Your task to perform on an android device: change the clock display to show seconds Image 0: 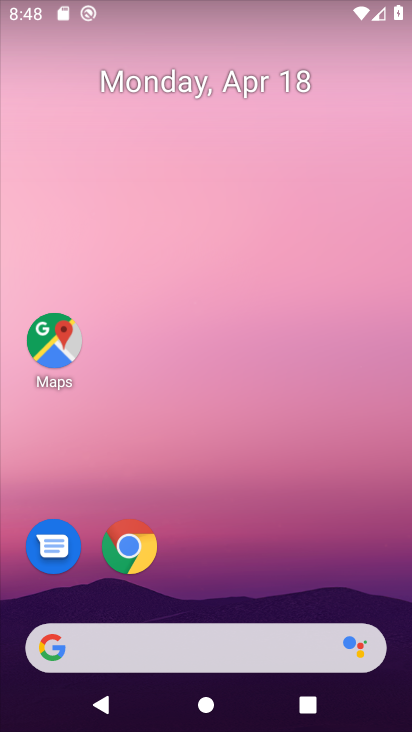
Step 0: drag from (291, 591) to (325, 91)
Your task to perform on an android device: change the clock display to show seconds Image 1: 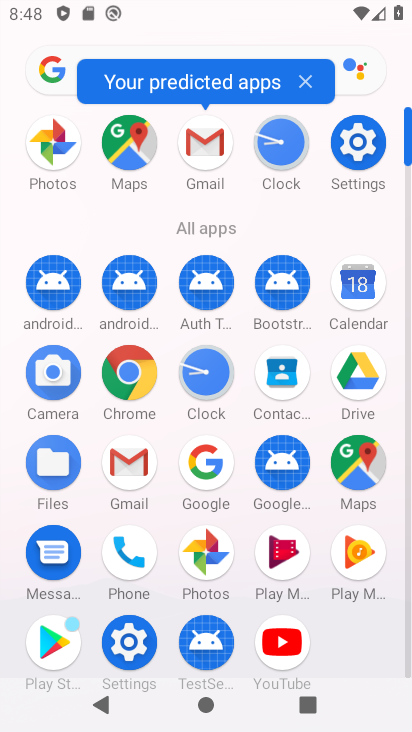
Step 1: click (276, 149)
Your task to perform on an android device: change the clock display to show seconds Image 2: 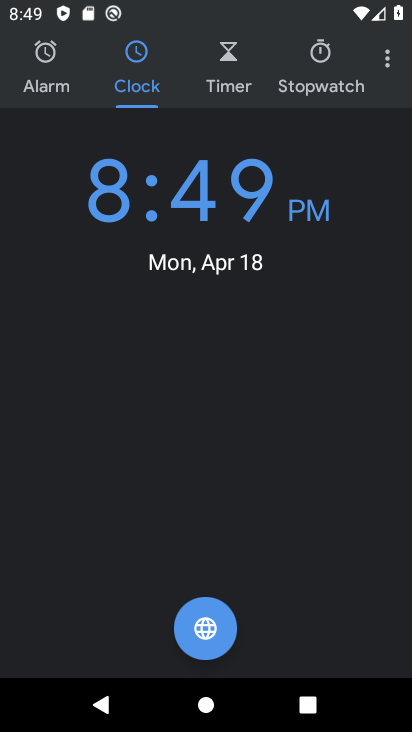
Step 2: click (384, 66)
Your task to perform on an android device: change the clock display to show seconds Image 3: 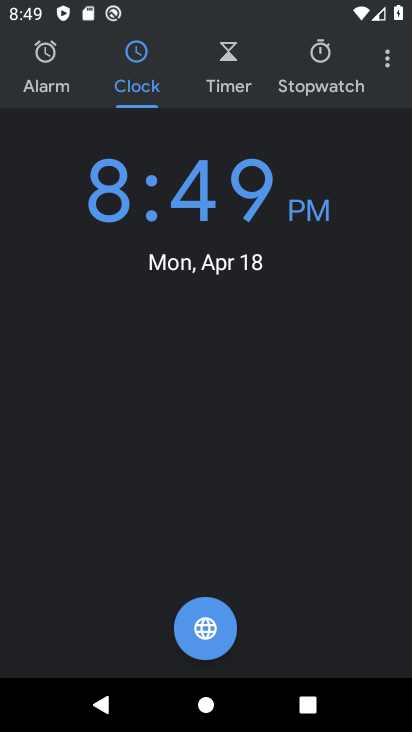
Step 3: click (385, 65)
Your task to perform on an android device: change the clock display to show seconds Image 4: 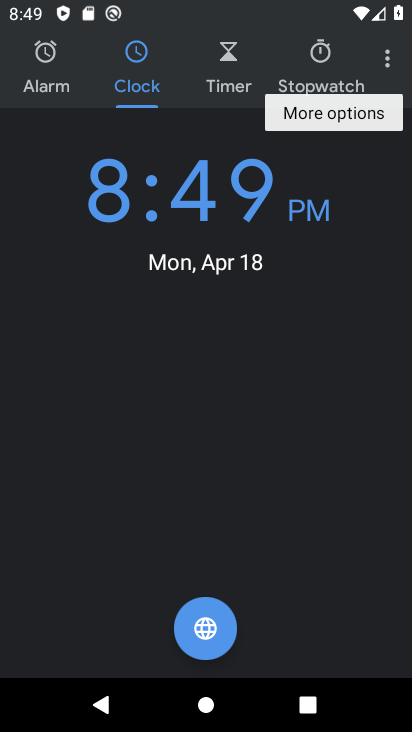
Step 4: click (384, 64)
Your task to perform on an android device: change the clock display to show seconds Image 5: 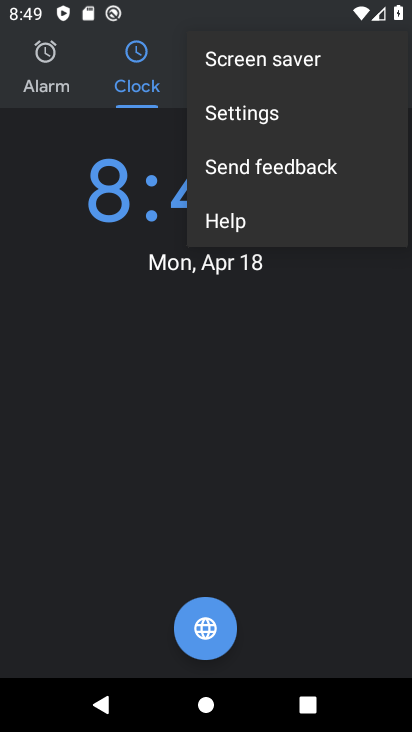
Step 5: click (250, 110)
Your task to perform on an android device: change the clock display to show seconds Image 6: 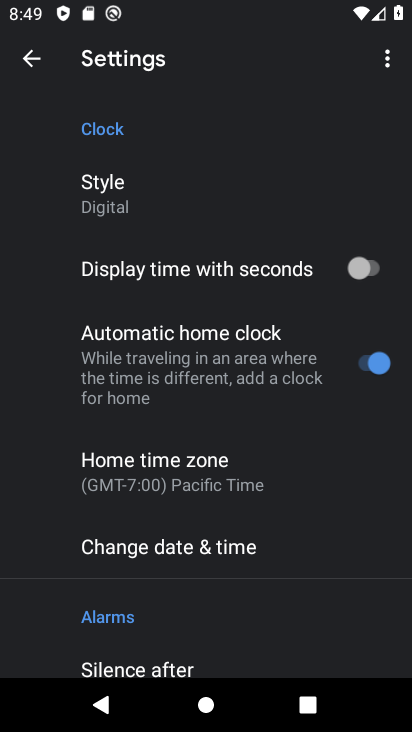
Step 6: click (340, 271)
Your task to perform on an android device: change the clock display to show seconds Image 7: 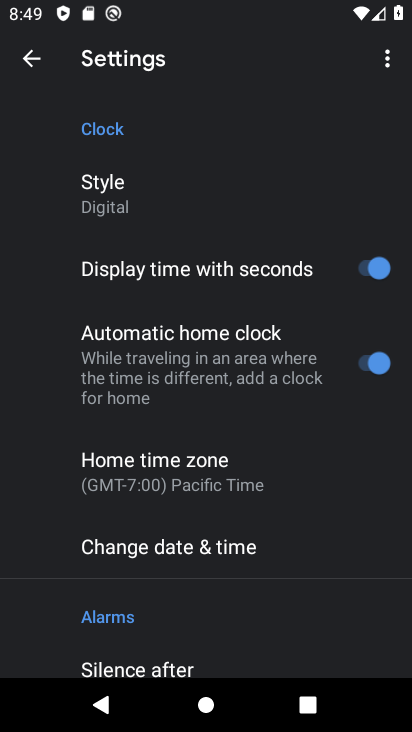
Step 7: task complete